Your task to perform on an android device: Do I have any events tomorrow? Image 0: 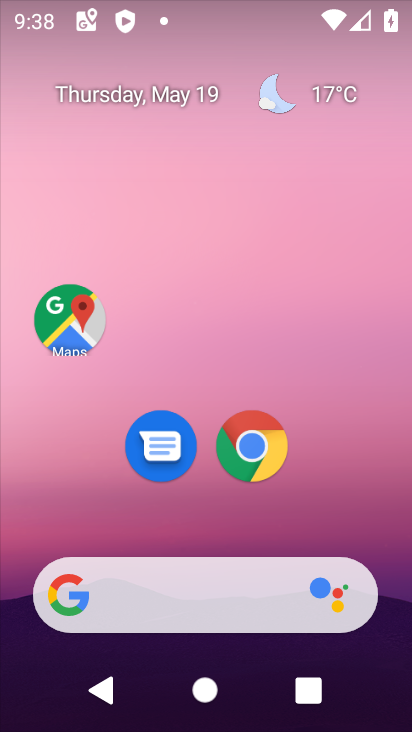
Step 0: drag from (214, 468) to (270, 8)
Your task to perform on an android device: Do I have any events tomorrow? Image 1: 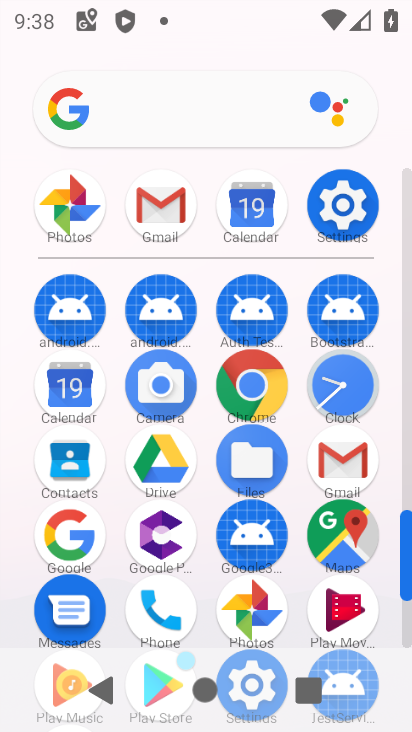
Step 1: click (90, 392)
Your task to perform on an android device: Do I have any events tomorrow? Image 2: 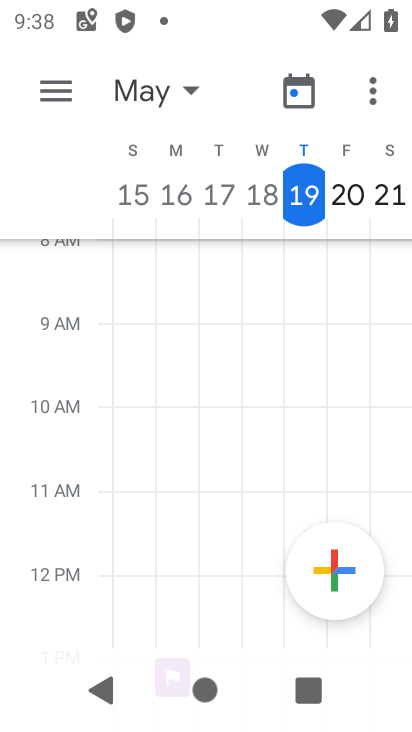
Step 2: click (50, 89)
Your task to perform on an android device: Do I have any events tomorrow? Image 3: 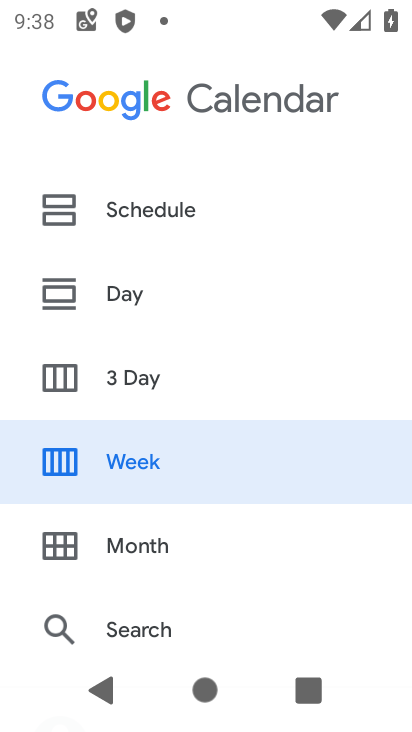
Step 3: drag from (146, 486) to (248, 94)
Your task to perform on an android device: Do I have any events tomorrow? Image 4: 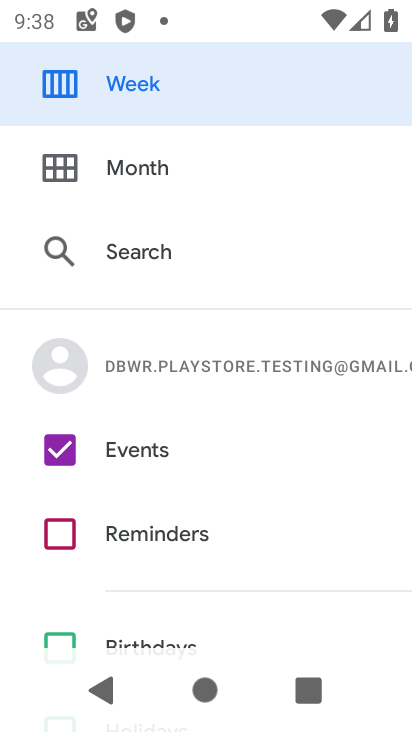
Step 4: drag from (192, 229) to (157, 513)
Your task to perform on an android device: Do I have any events tomorrow? Image 5: 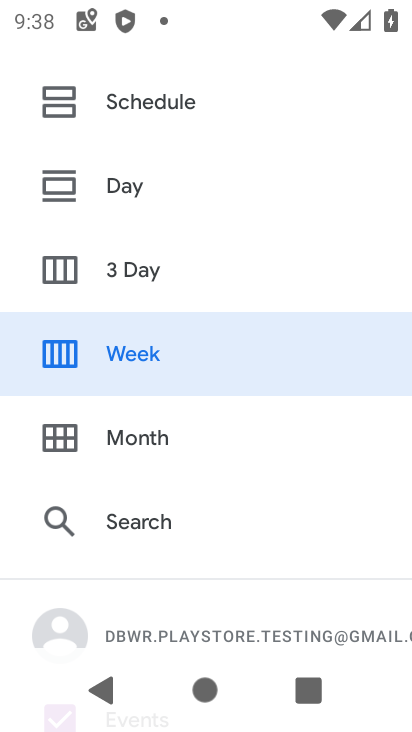
Step 5: click (142, 151)
Your task to perform on an android device: Do I have any events tomorrow? Image 6: 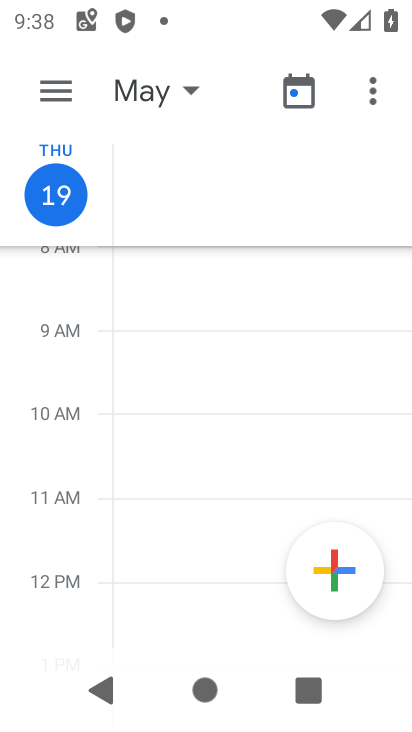
Step 6: click (68, 84)
Your task to perform on an android device: Do I have any events tomorrow? Image 7: 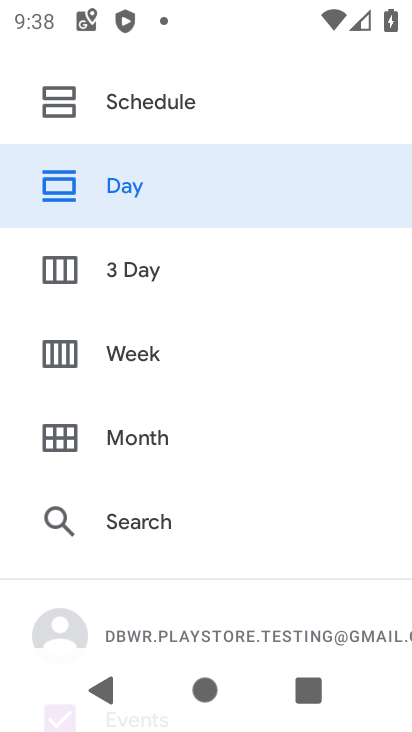
Step 7: click (154, 267)
Your task to perform on an android device: Do I have any events tomorrow? Image 8: 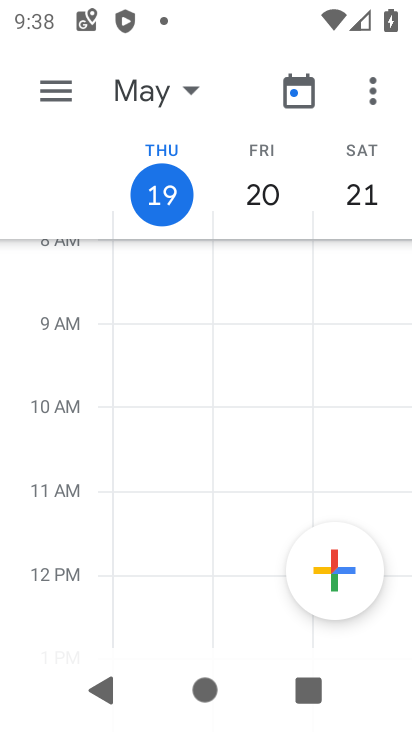
Step 8: task complete